Your task to perform on an android device: turn on sleep mode Image 0: 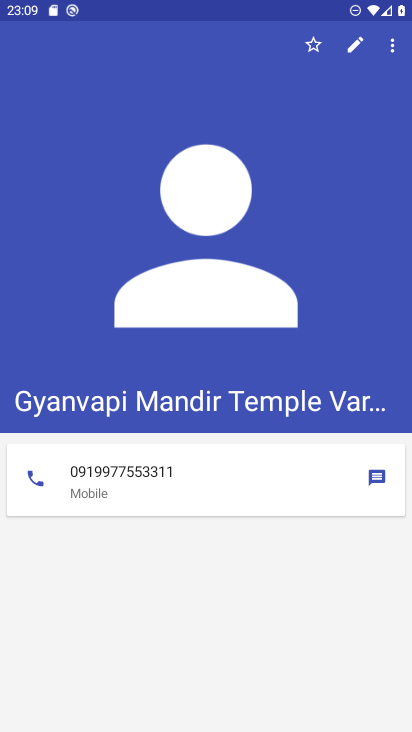
Step 0: press home button
Your task to perform on an android device: turn on sleep mode Image 1: 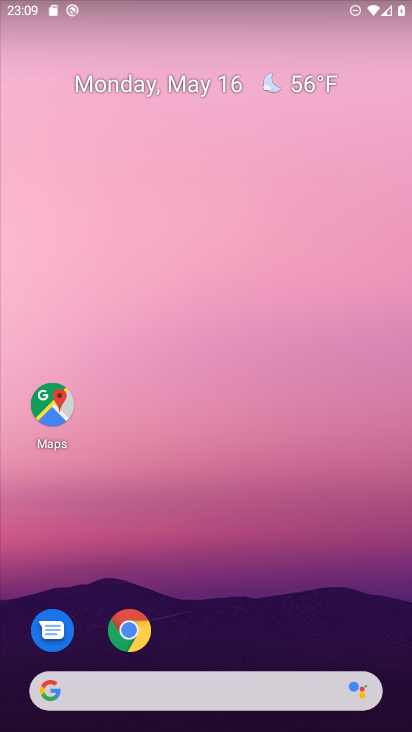
Step 1: drag from (304, 490) to (285, 164)
Your task to perform on an android device: turn on sleep mode Image 2: 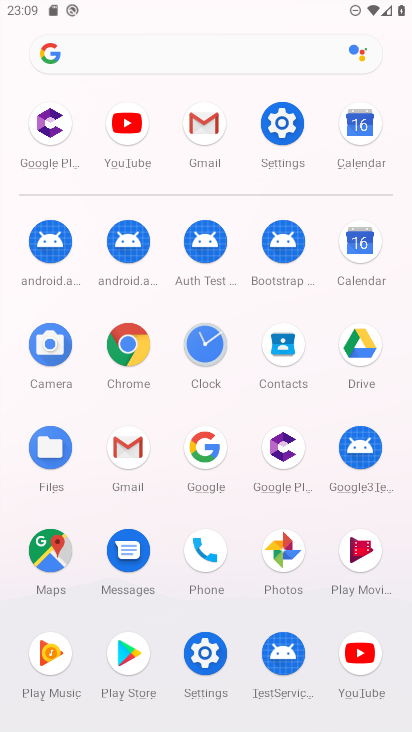
Step 2: click (273, 124)
Your task to perform on an android device: turn on sleep mode Image 3: 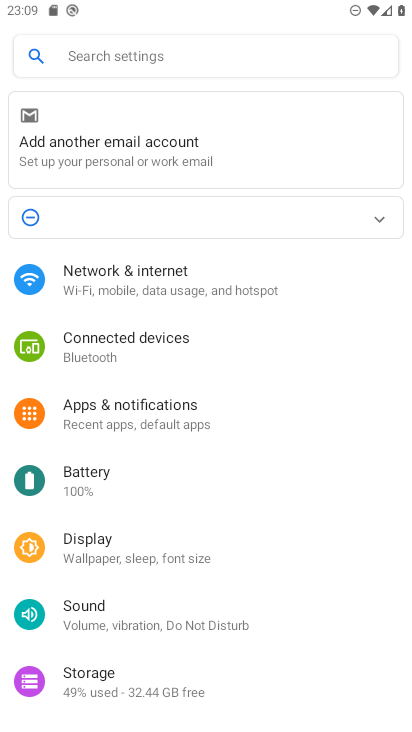
Step 3: click (127, 547)
Your task to perform on an android device: turn on sleep mode Image 4: 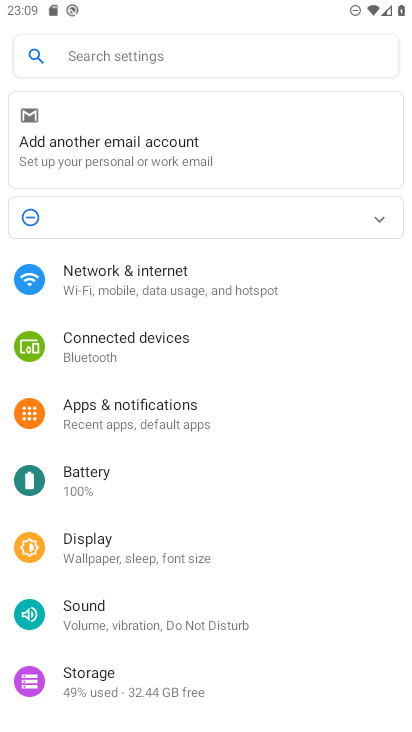
Step 4: click (129, 538)
Your task to perform on an android device: turn on sleep mode Image 5: 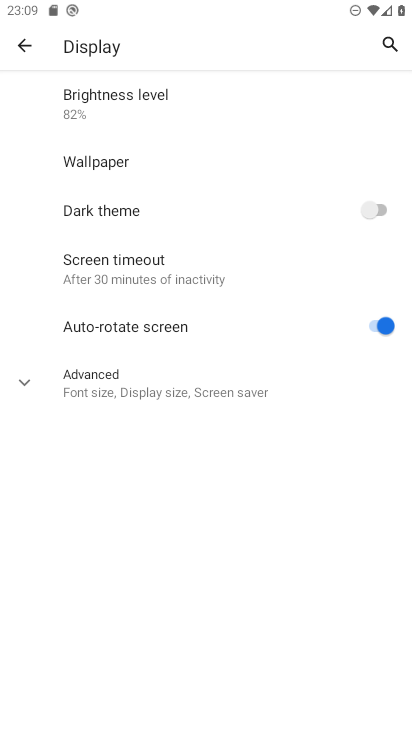
Step 5: click (19, 379)
Your task to perform on an android device: turn on sleep mode Image 6: 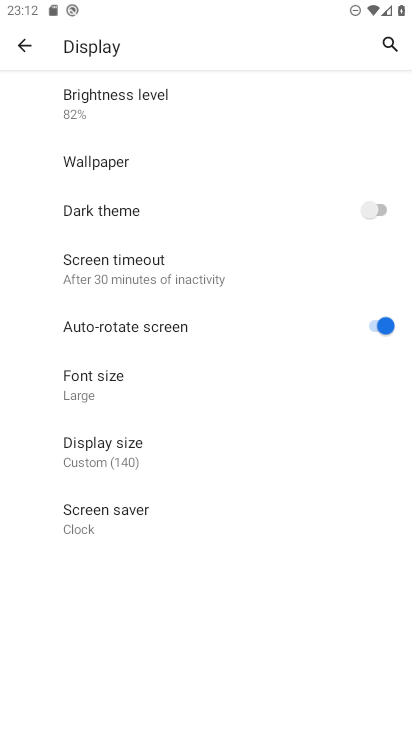
Step 6: task complete